Your task to perform on an android device: turn off priority inbox in the gmail app Image 0: 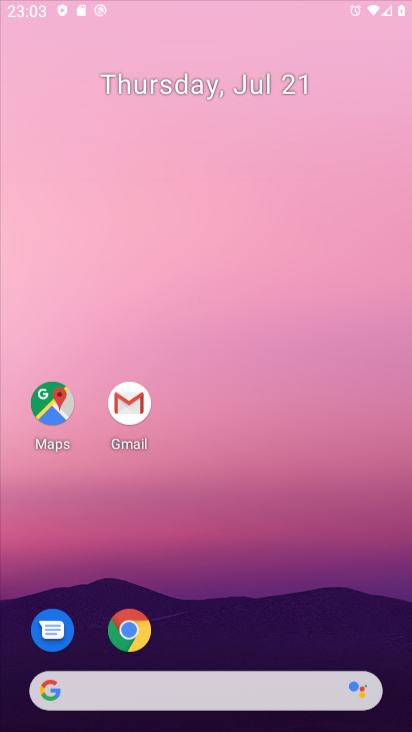
Step 0: drag from (254, 706) to (233, 222)
Your task to perform on an android device: turn off priority inbox in the gmail app Image 1: 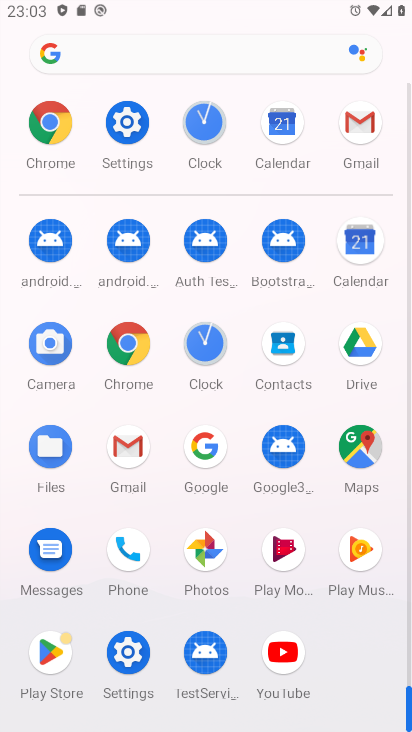
Step 1: click (140, 443)
Your task to perform on an android device: turn off priority inbox in the gmail app Image 2: 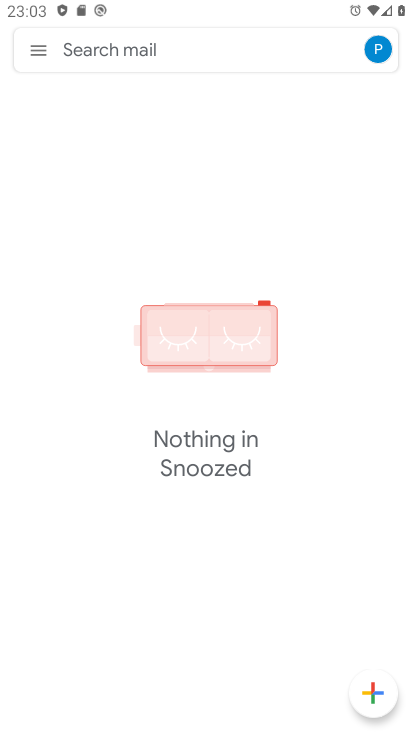
Step 2: click (36, 48)
Your task to perform on an android device: turn off priority inbox in the gmail app Image 3: 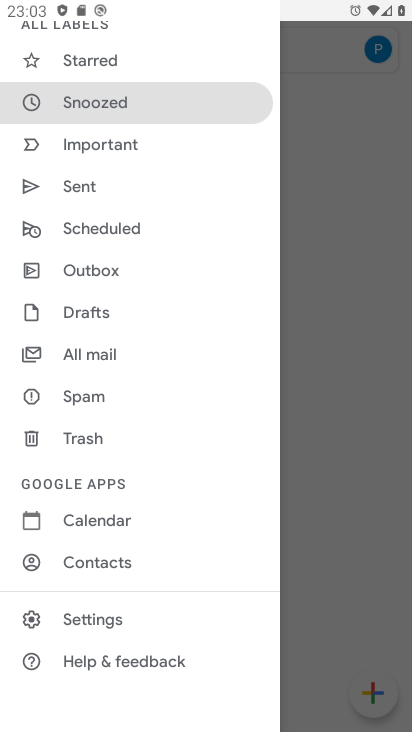
Step 3: click (97, 618)
Your task to perform on an android device: turn off priority inbox in the gmail app Image 4: 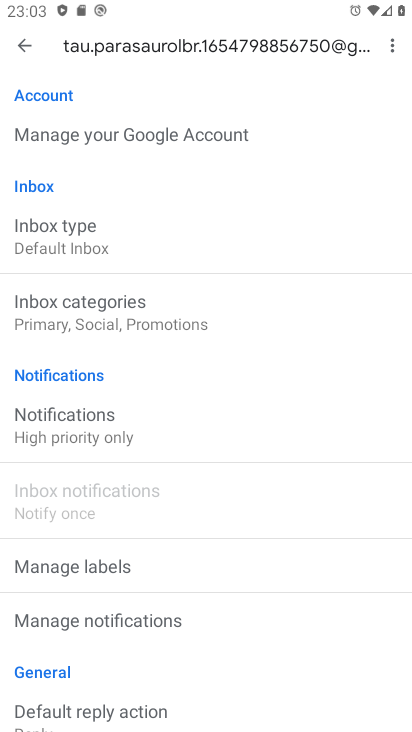
Step 4: click (61, 232)
Your task to perform on an android device: turn off priority inbox in the gmail app Image 5: 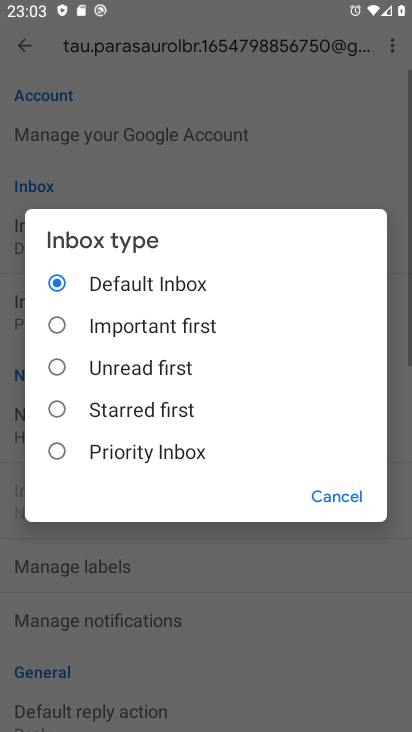
Step 5: click (296, 163)
Your task to perform on an android device: turn off priority inbox in the gmail app Image 6: 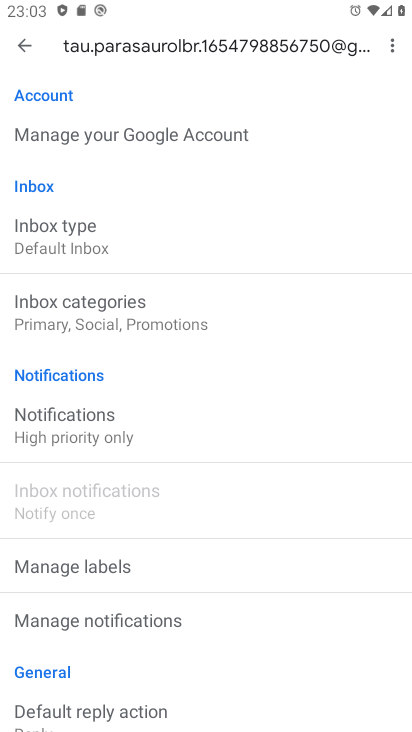
Step 6: task complete